Your task to perform on an android device: toggle pop-ups in chrome Image 0: 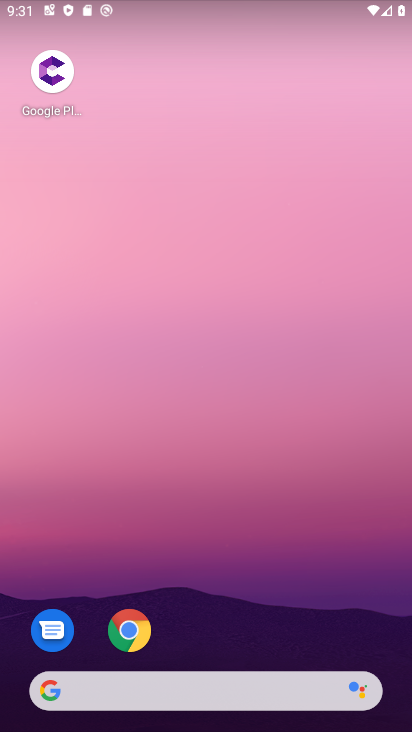
Step 0: drag from (284, 613) to (325, 122)
Your task to perform on an android device: toggle pop-ups in chrome Image 1: 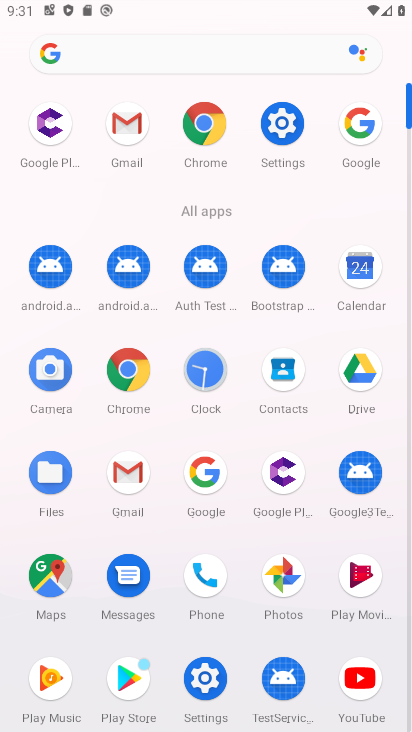
Step 1: click (207, 150)
Your task to perform on an android device: toggle pop-ups in chrome Image 2: 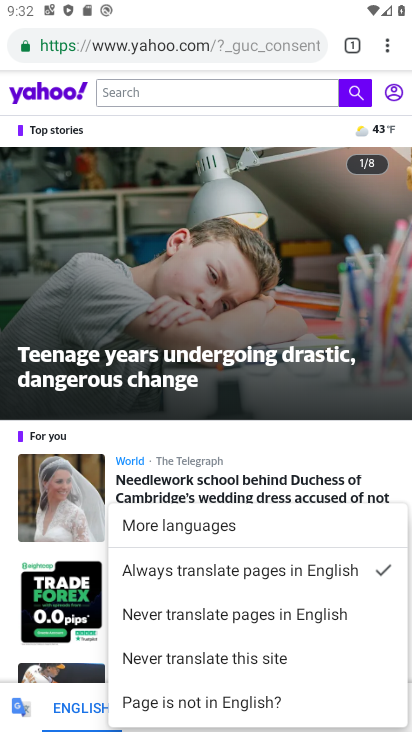
Step 2: click (386, 41)
Your task to perform on an android device: toggle pop-ups in chrome Image 3: 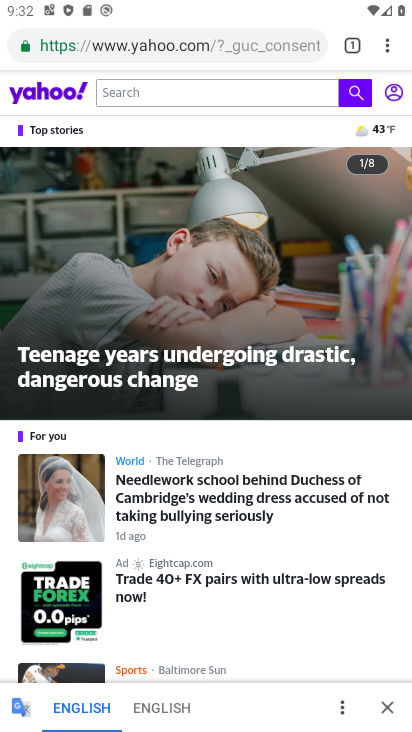
Step 3: click (386, 41)
Your task to perform on an android device: toggle pop-ups in chrome Image 4: 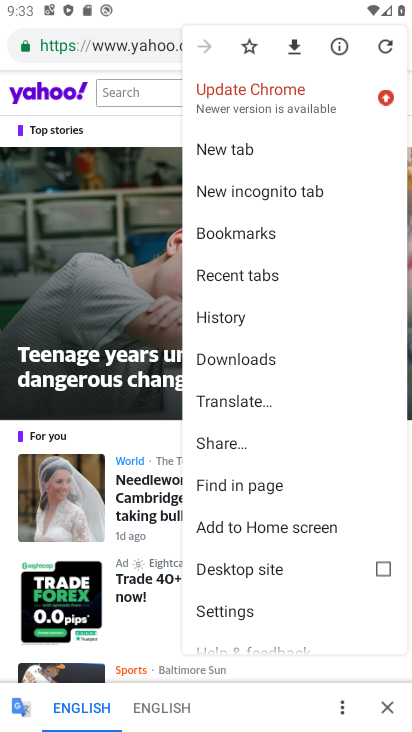
Step 4: click (279, 606)
Your task to perform on an android device: toggle pop-ups in chrome Image 5: 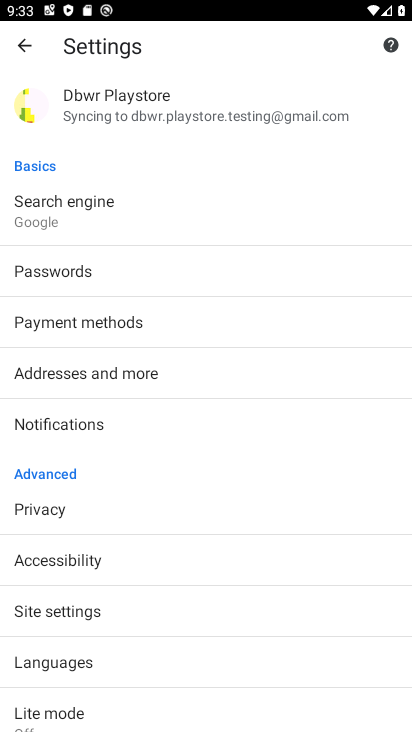
Step 5: drag from (257, 578) to (333, 167)
Your task to perform on an android device: toggle pop-ups in chrome Image 6: 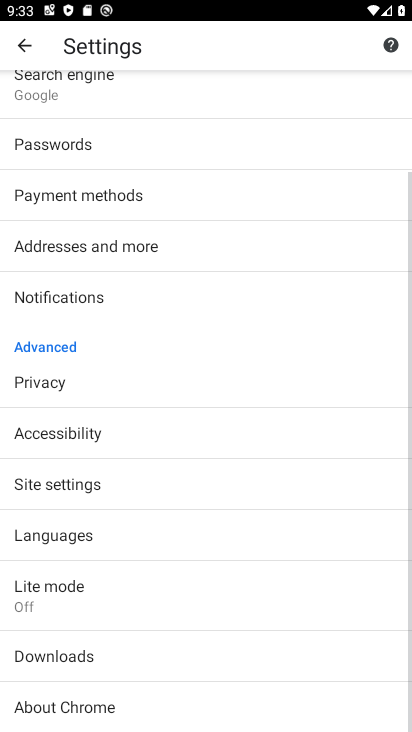
Step 6: click (43, 489)
Your task to perform on an android device: toggle pop-ups in chrome Image 7: 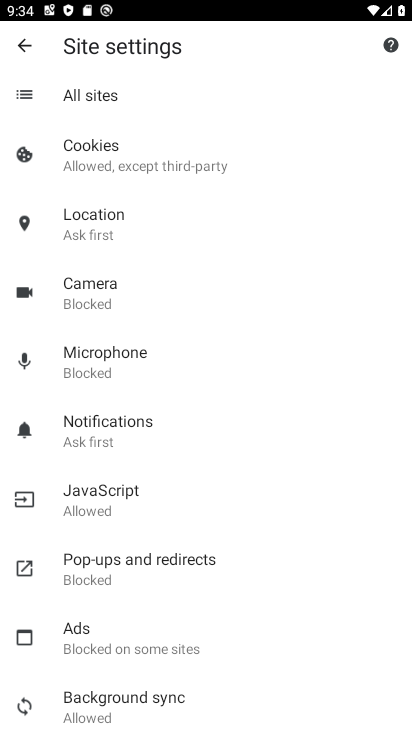
Step 7: click (139, 586)
Your task to perform on an android device: toggle pop-ups in chrome Image 8: 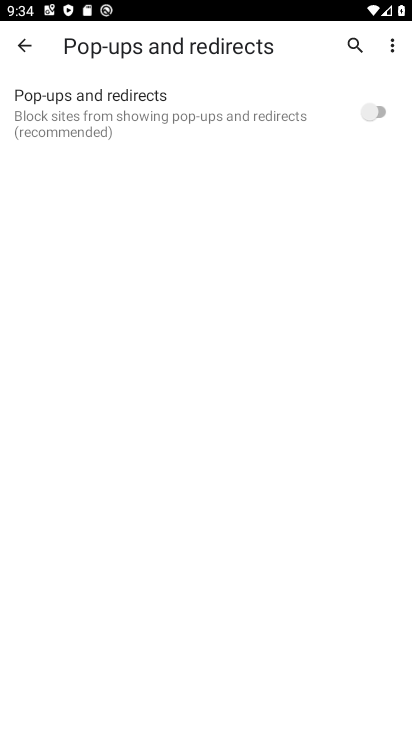
Step 8: task complete